Your task to perform on an android device: empty trash in google photos Image 0: 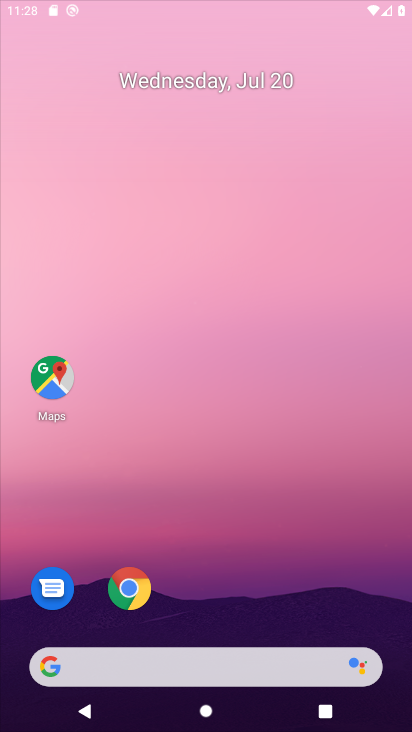
Step 0: press home button
Your task to perform on an android device: empty trash in google photos Image 1: 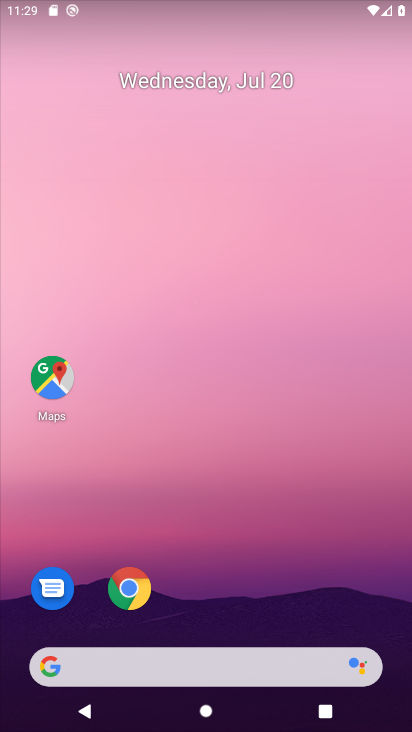
Step 1: drag from (233, 621) to (187, 19)
Your task to perform on an android device: empty trash in google photos Image 2: 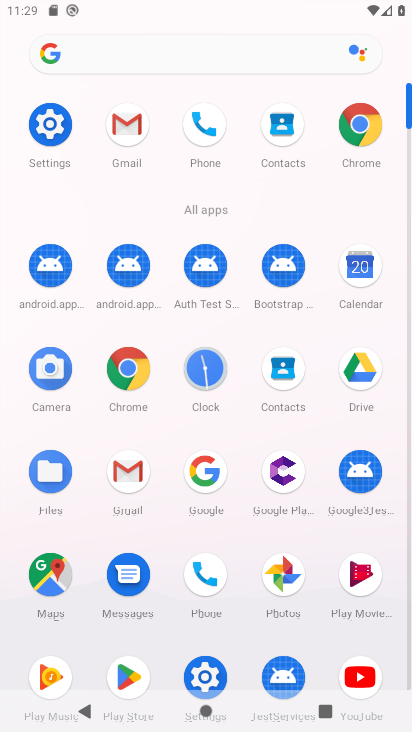
Step 2: click (281, 568)
Your task to perform on an android device: empty trash in google photos Image 3: 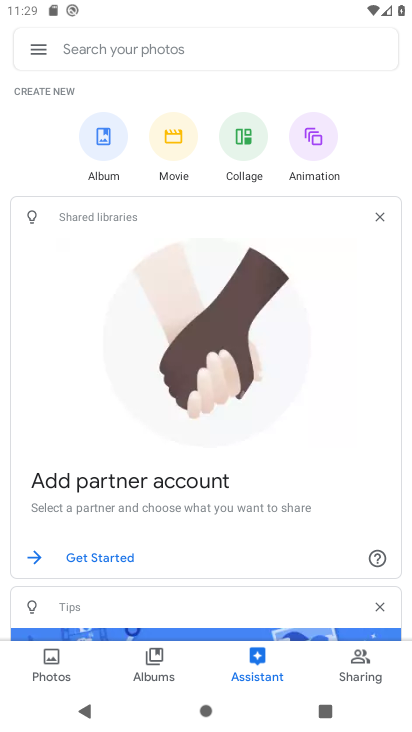
Step 3: click (35, 46)
Your task to perform on an android device: empty trash in google photos Image 4: 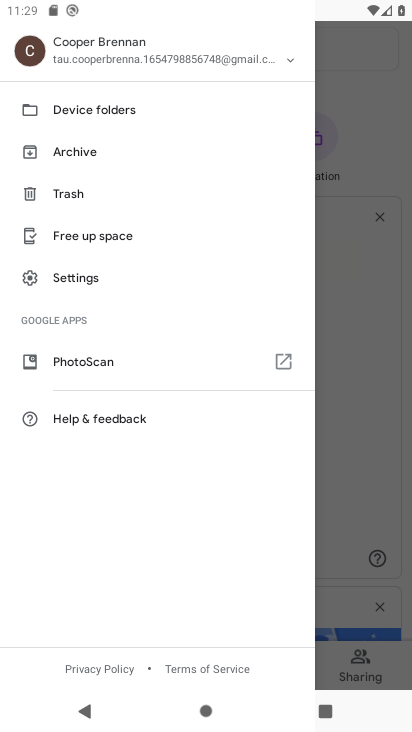
Step 4: click (65, 188)
Your task to perform on an android device: empty trash in google photos Image 5: 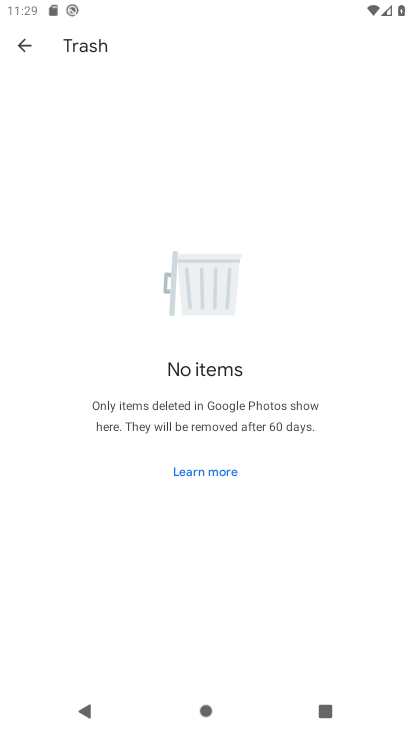
Step 5: task complete